Your task to perform on an android device: open app "eBay: The shopping marketplace" Image 0: 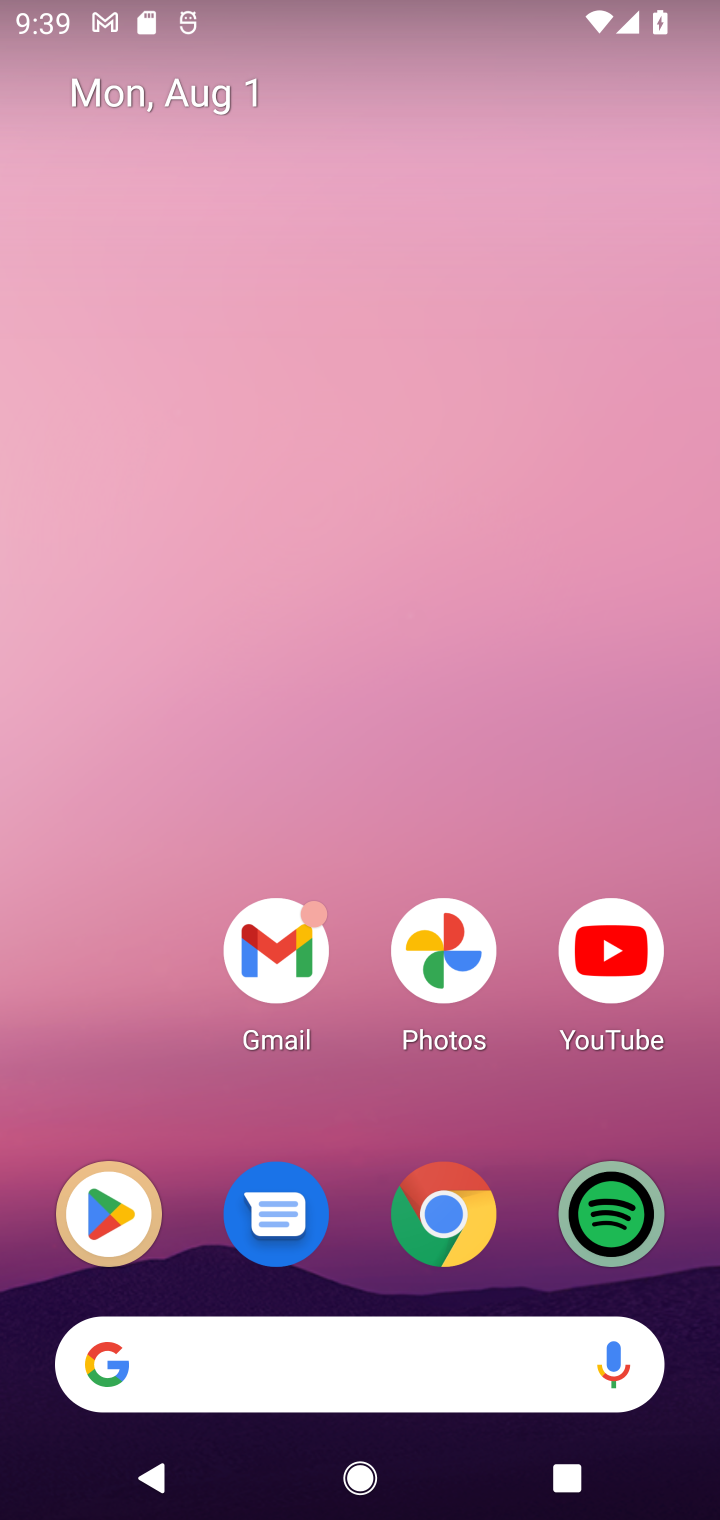
Step 0: press home button
Your task to perform on an android device: open app "eBay: The shopping marketplace" Image 1: 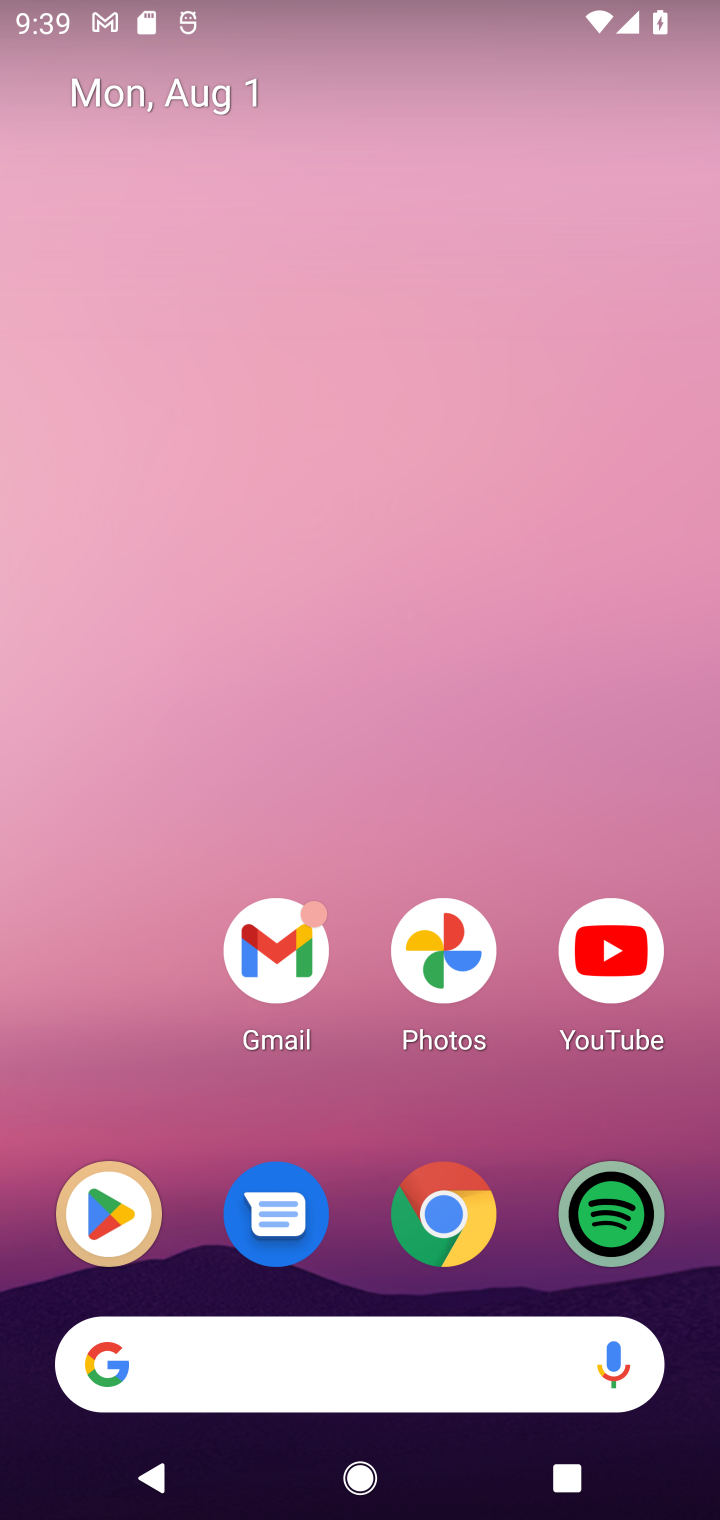
Step 1: click (129, 1215)
Your task to perform on an android device: open app "eBay: The shopping marketplace" Image 2: 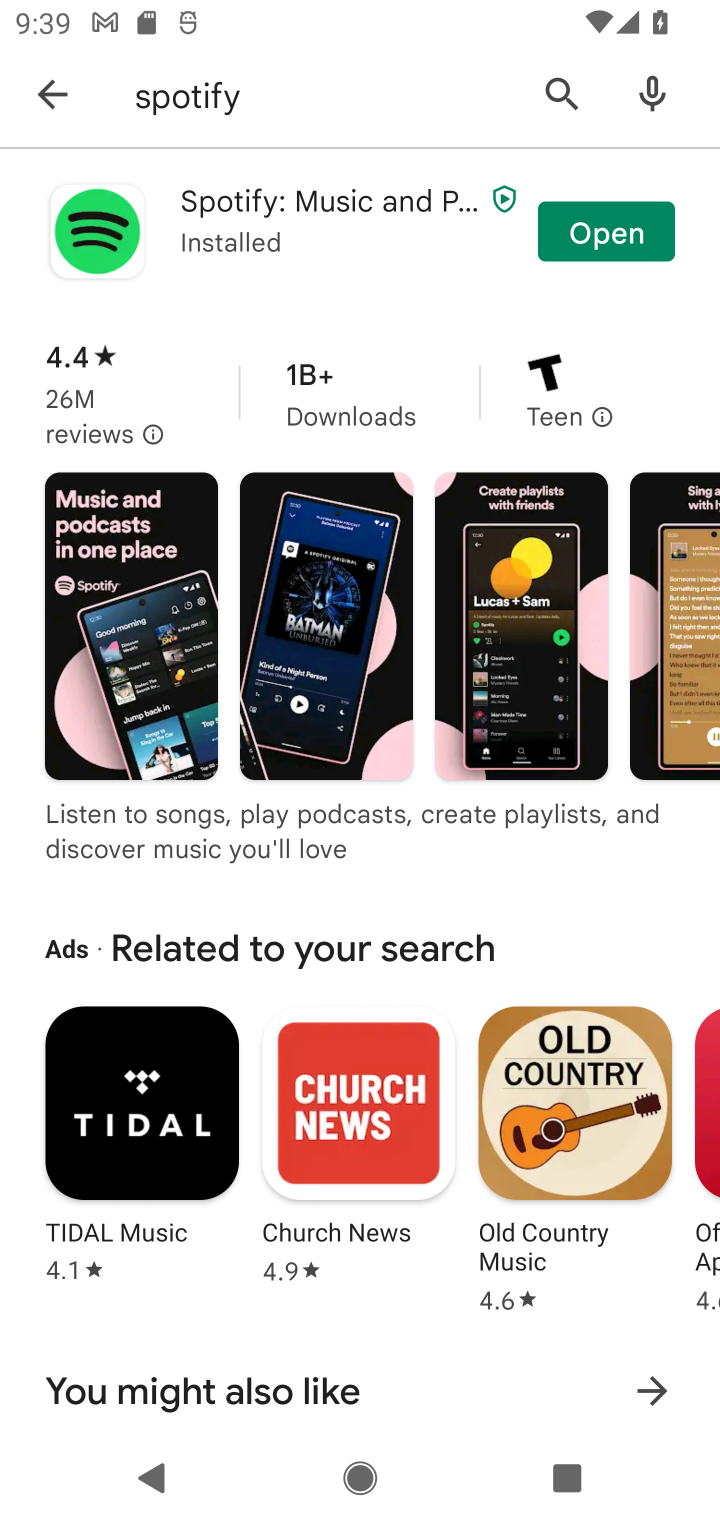
Step 2: click (549, 84)
Your task to perform on an android device: open app "eBay: The shopping marketplace" Image 3: 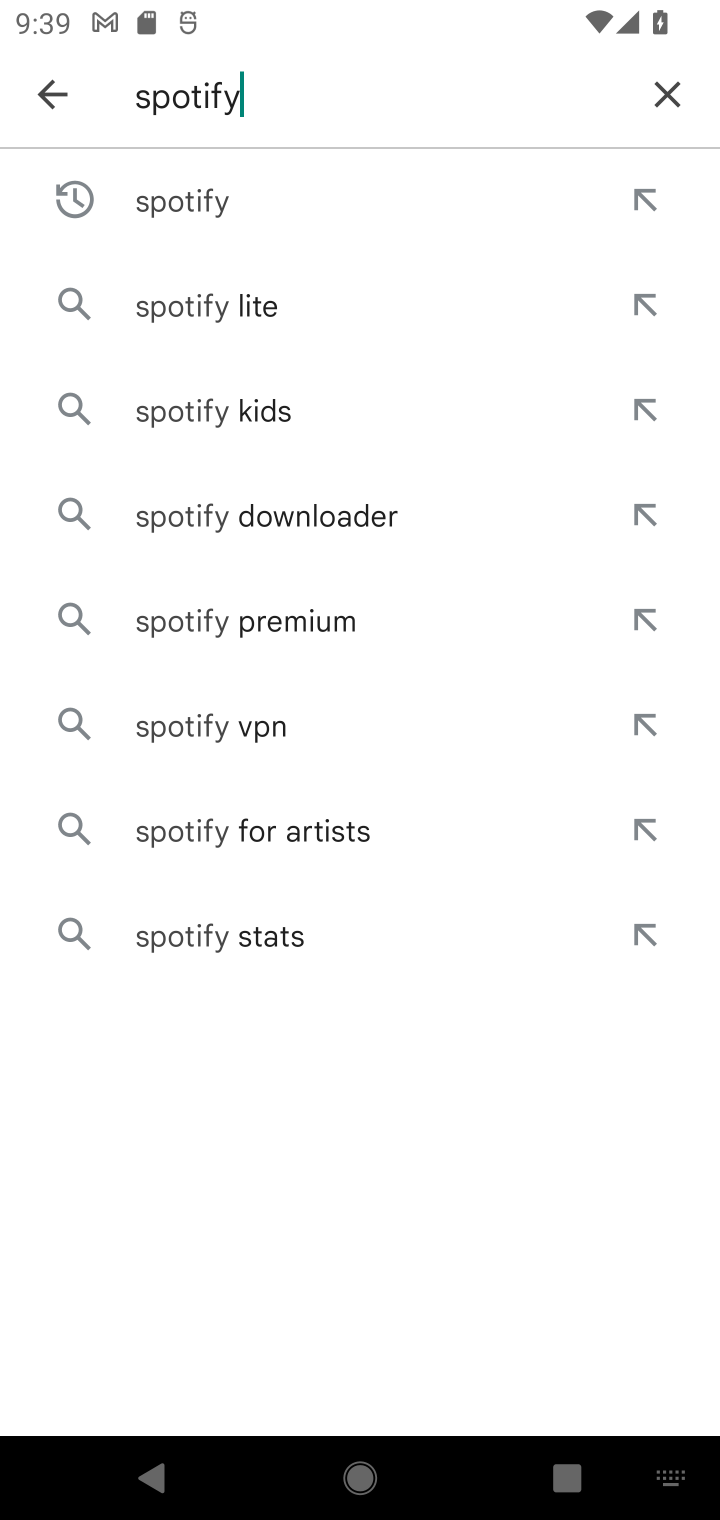
Step 3: click (661, 101)
Your task to perform on an android device: open app "eBay: The shopping marketplace" Image 4: 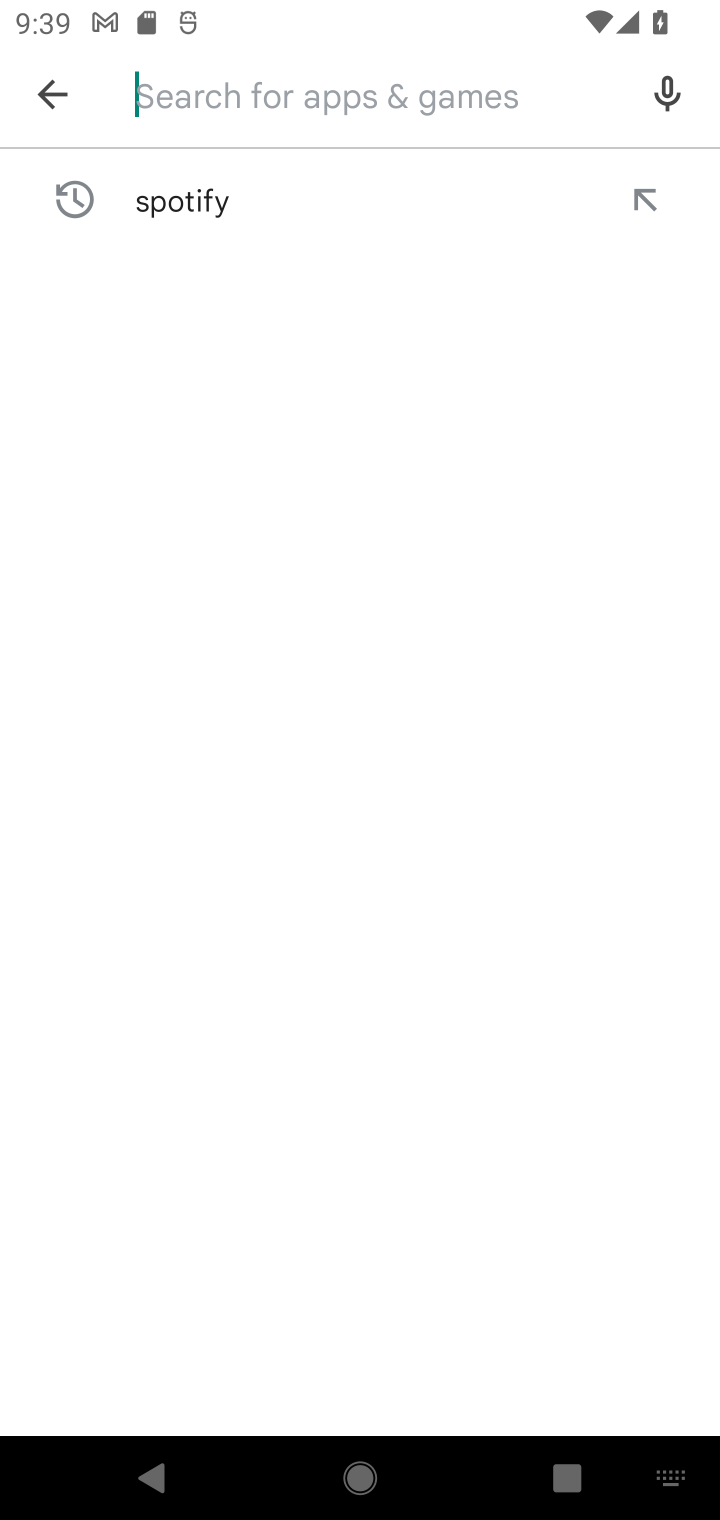
Step 4: type "eBay: The shopping marketplace"
Your task to perform on an android device: open app "eBay: The shopping marketplace" Image 5: 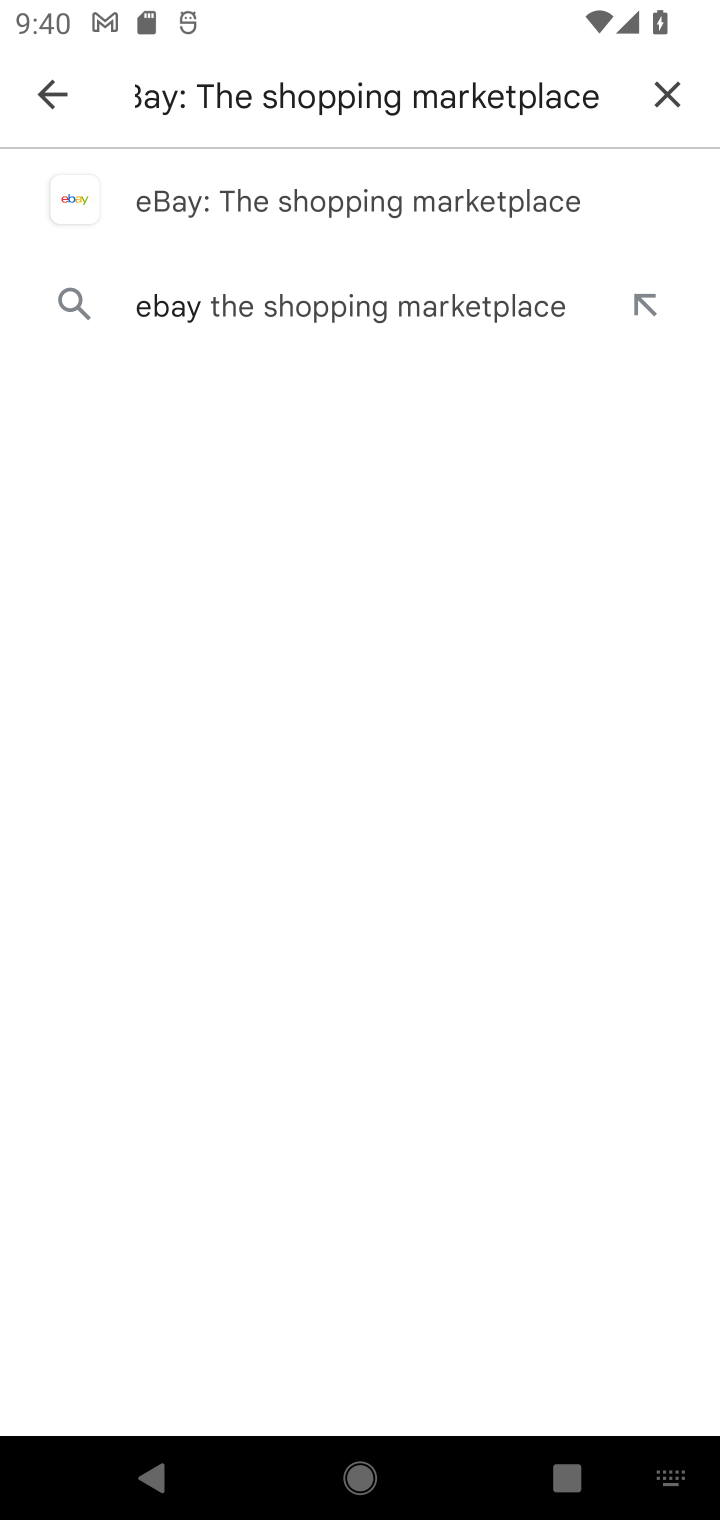
Step 5: click (356, 204)
Your task to perform on an android device: open app "eBay: The shopping marketplace" Image 6: 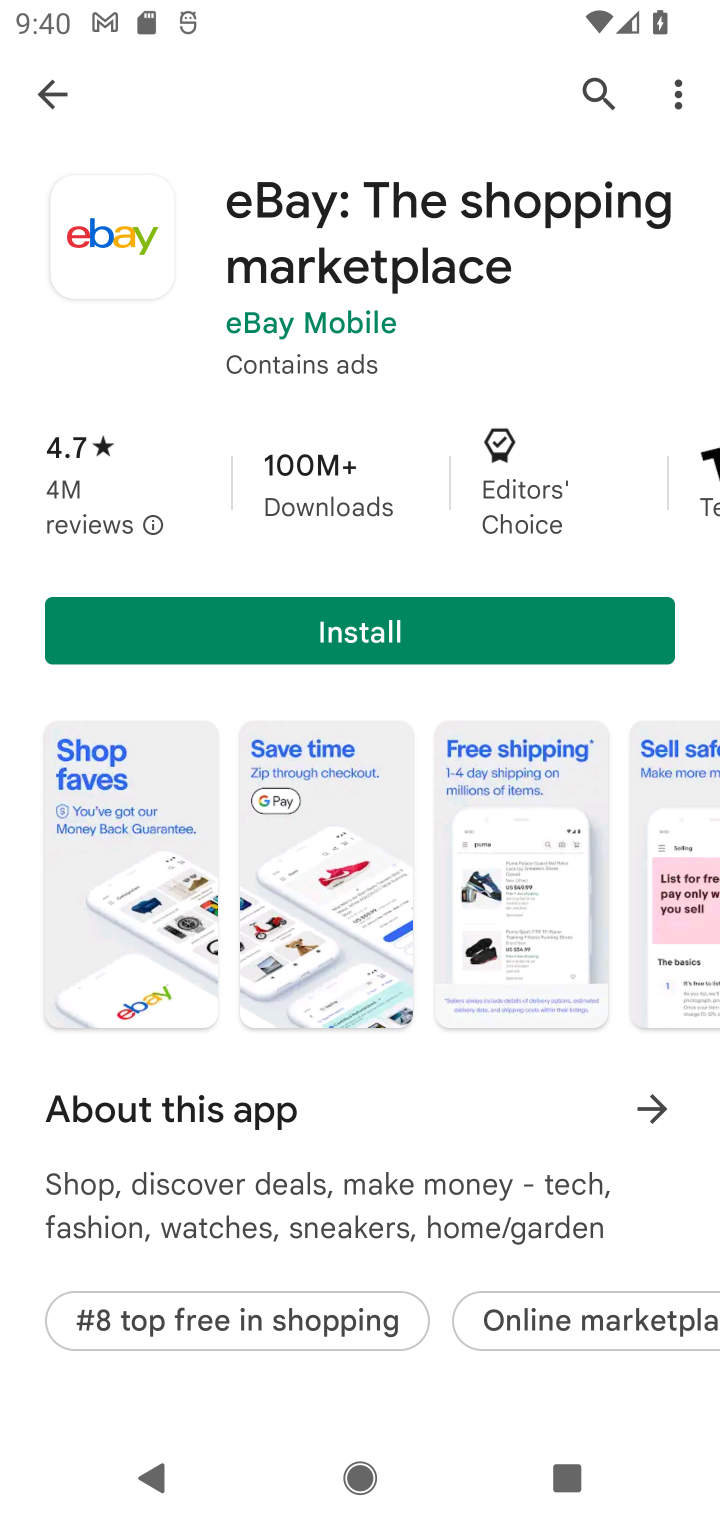
Step 6: task complete